Your task to perform on an android device: Go to sound settings Image 0: 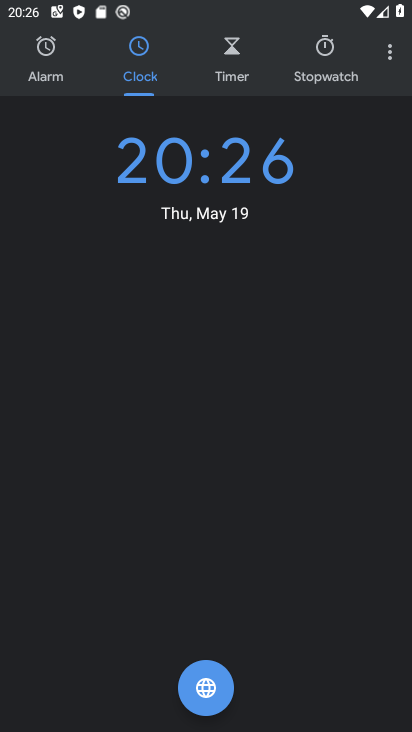
Step 0: press home button
Your task to perform on an android device: Go to sound settings Image 1: 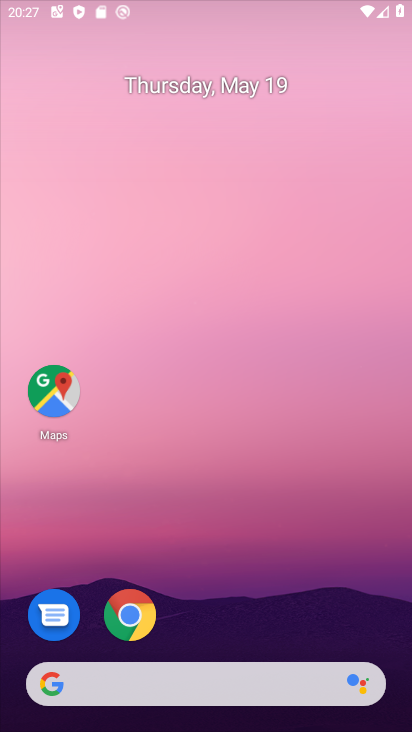
Step 1: drag from (226, 561) to (258, 82)
Your task to perform on an android device: Go to sound settings Image 2: 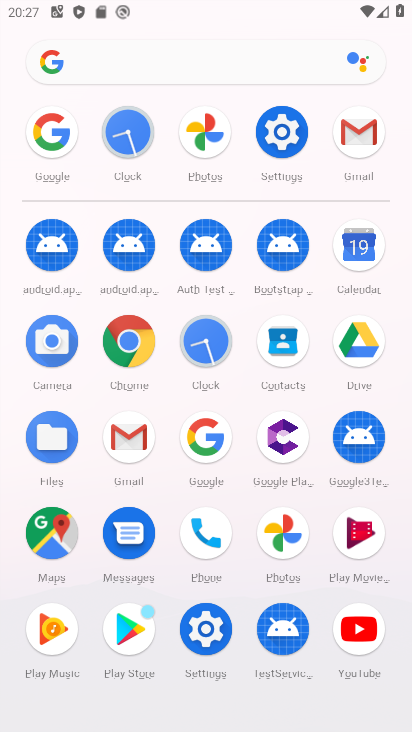
Step 2: click (279, 129)
Your task to perform on an android device: Go to sound settings Image 3: 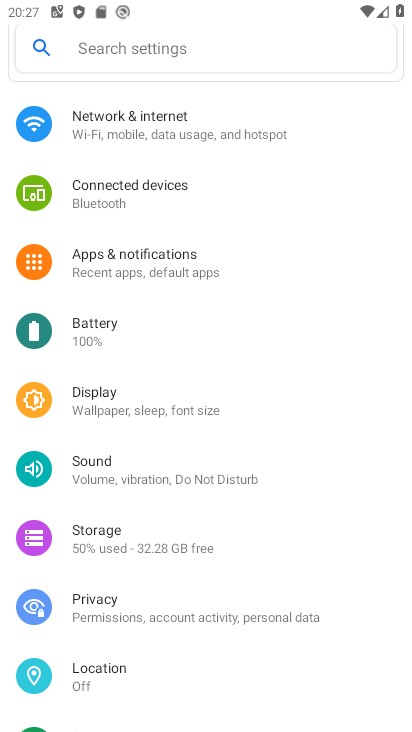
Step 3: click (111, 463)
Your task to perform on an android device: Go to sound settings Image 4: 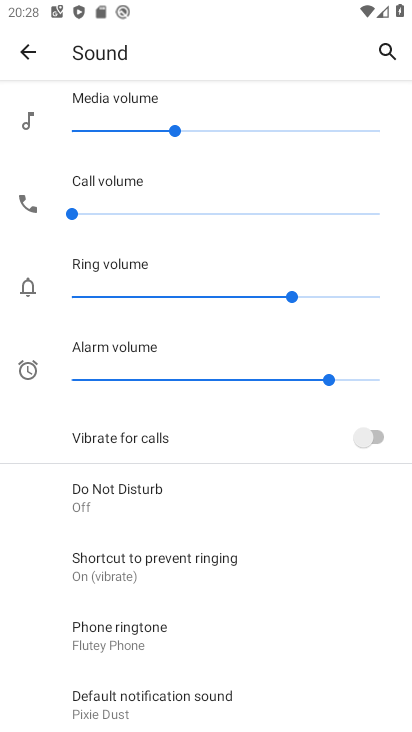
Step 4: task complete